Your task to perform on an android device: Set the phone to "Do not disturb". Image 0: 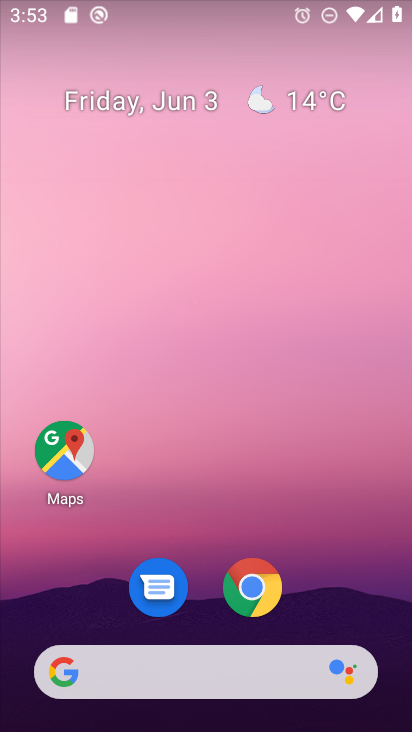
Step 0: drag from (218, 726) to (224, 67)
Your task to perform on an android device: Set the phone to "Do not disturb". Image 1: 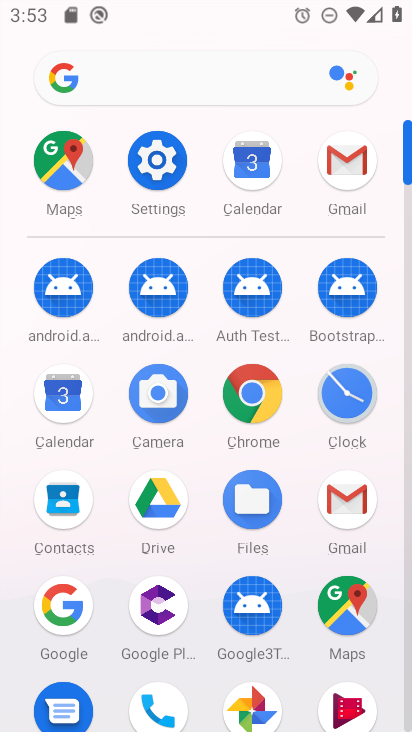
Step 1: click (152, 157)
Your task to perform on an android device: Set the phone to "Do not disturb". Image 2: 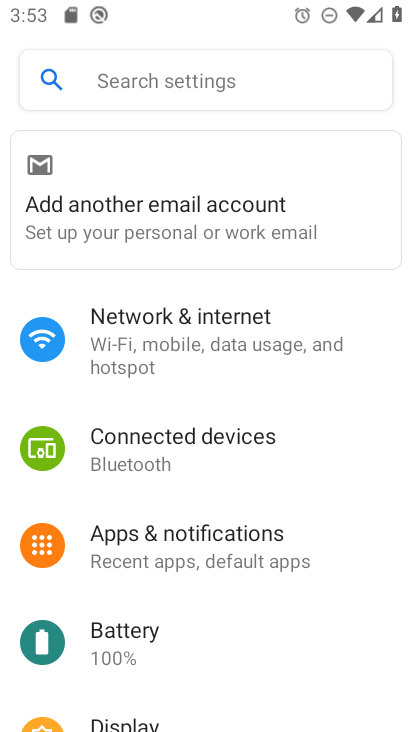
Step 2: drag from (202, 683) to (220, 344)
Your task to perform on an android device: Set the phone to "Do not disturb". Image 3: 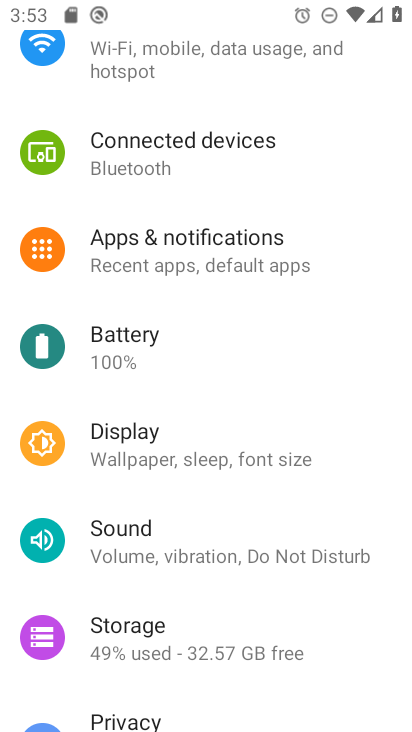
Step 3: click (241, 556)
Your task to perform on an android device: Set the phone to "Do not disturb". Image 4: 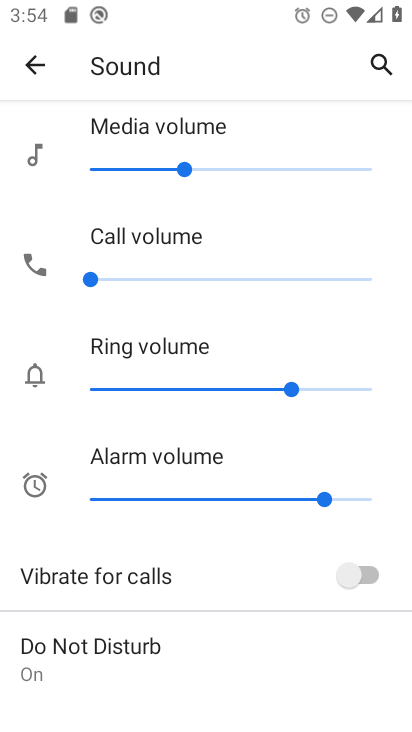
Step 4: click (132, 647)
Your task to perform on an android device: Set the phone to "Do not disturb". Image 5: 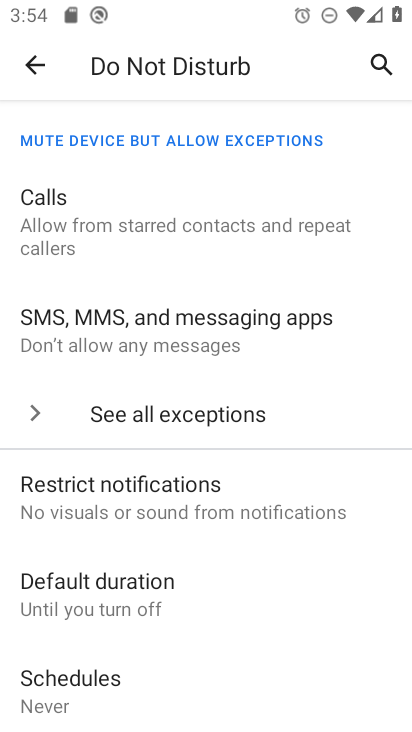
Step 5: task complete